Your task to perform on an android device: Open Amazon Image 0: 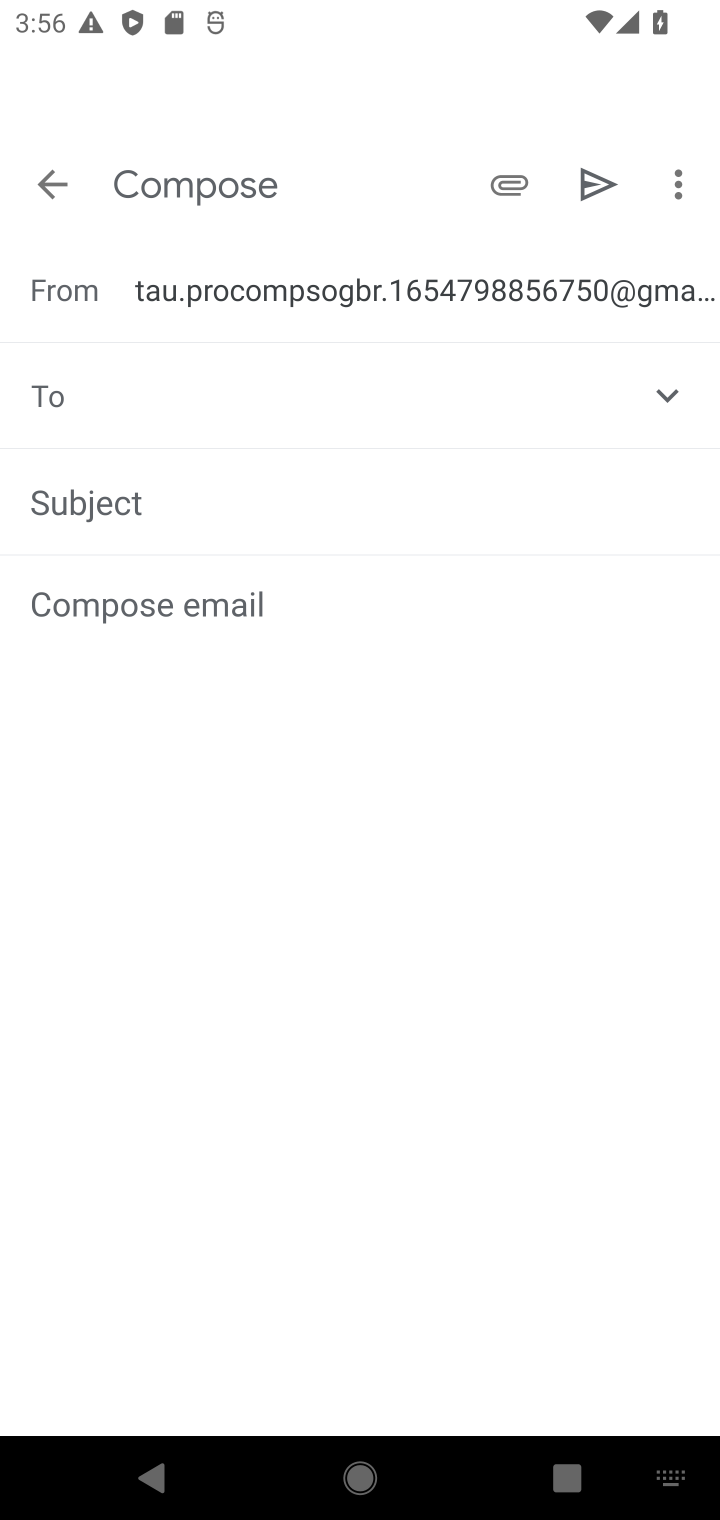
Step 0: press home button
Your task to perform on an android device: Open Amazon Image 1: 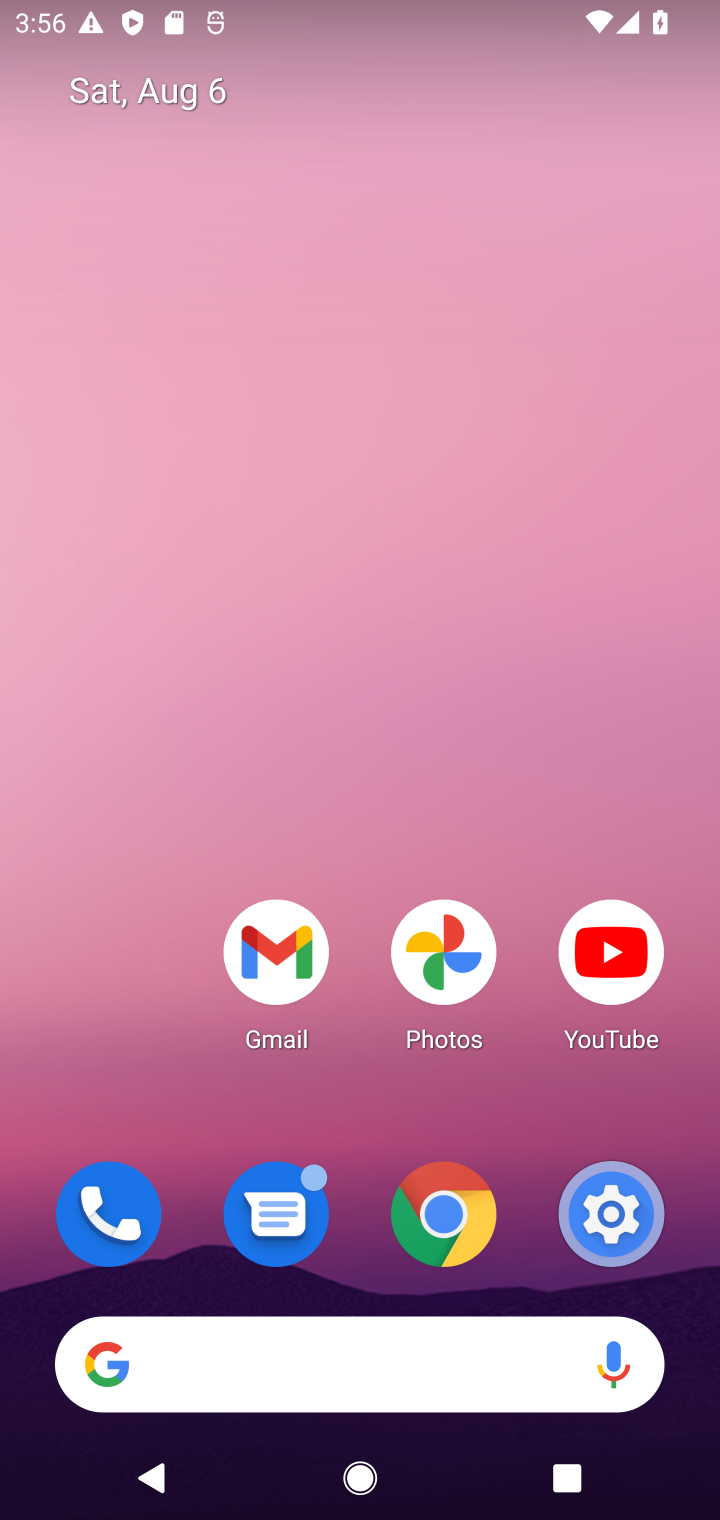
Step 1: click (444, 1209)
Your task to perform on an android device: Open Amazon Image 2: 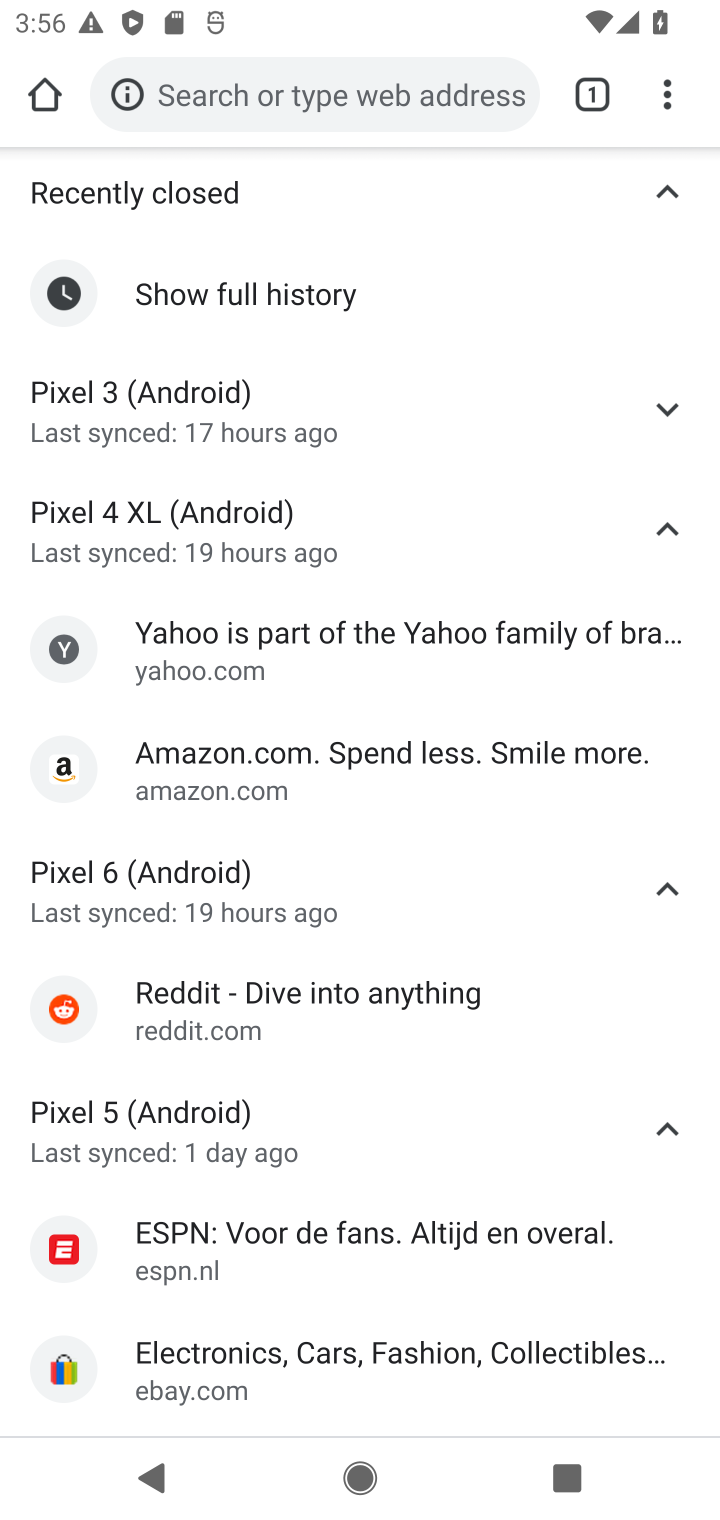
Step 2: press back button
Your task to perform on an android device: Open Amazon Image 3: 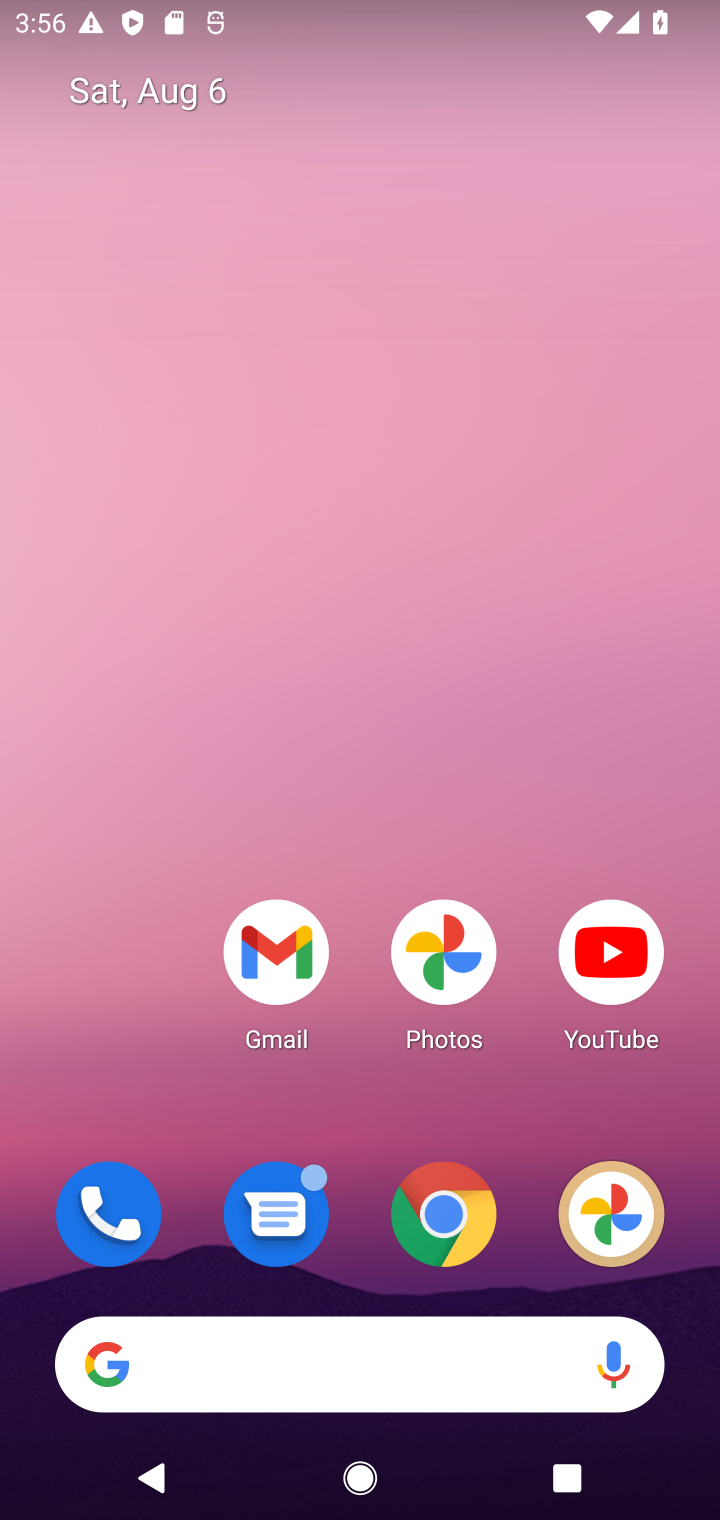
Step 3: click (425, 1216)
Your task to perform on an android device: Open Amazon Image 4: 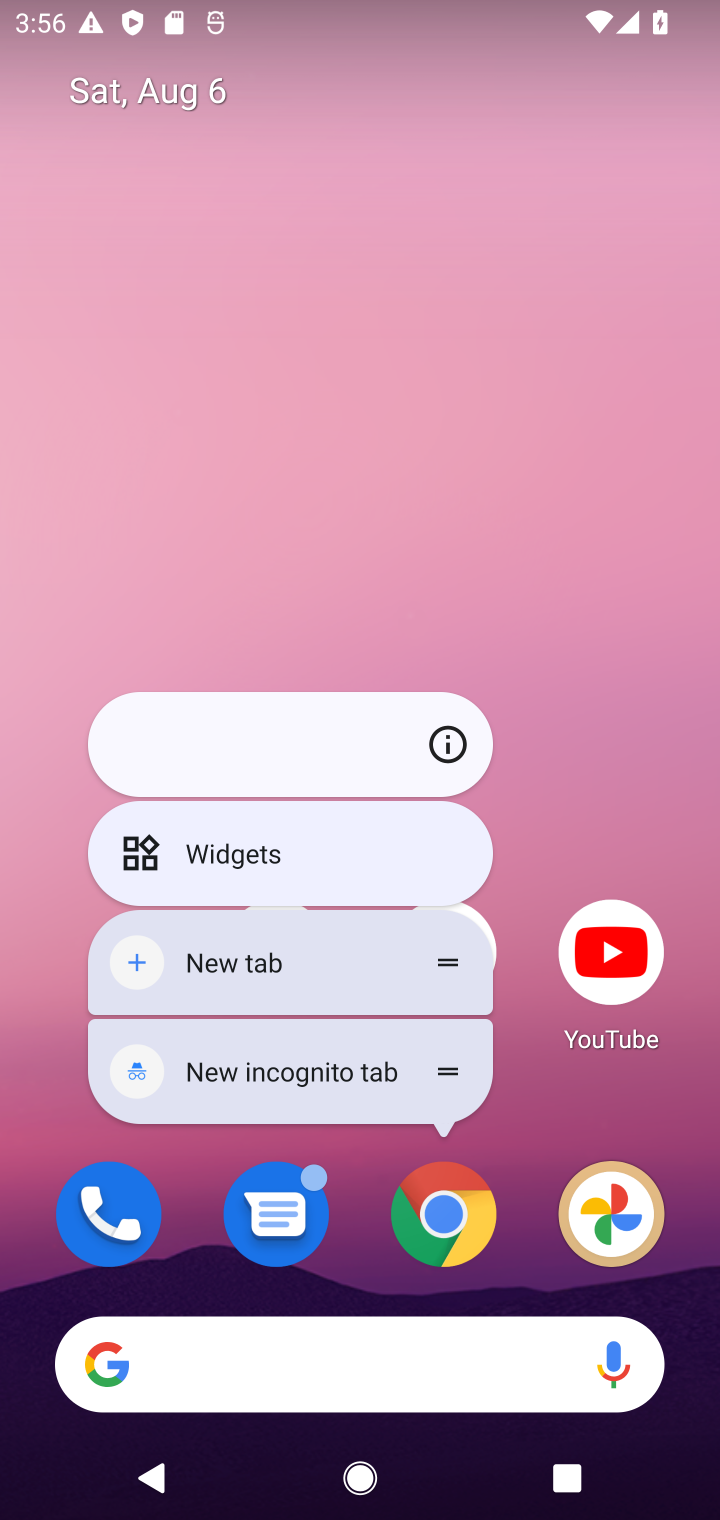
Step 4: click (438, 1216)
Your task to perform on an android device: Open Amazon Image 5: 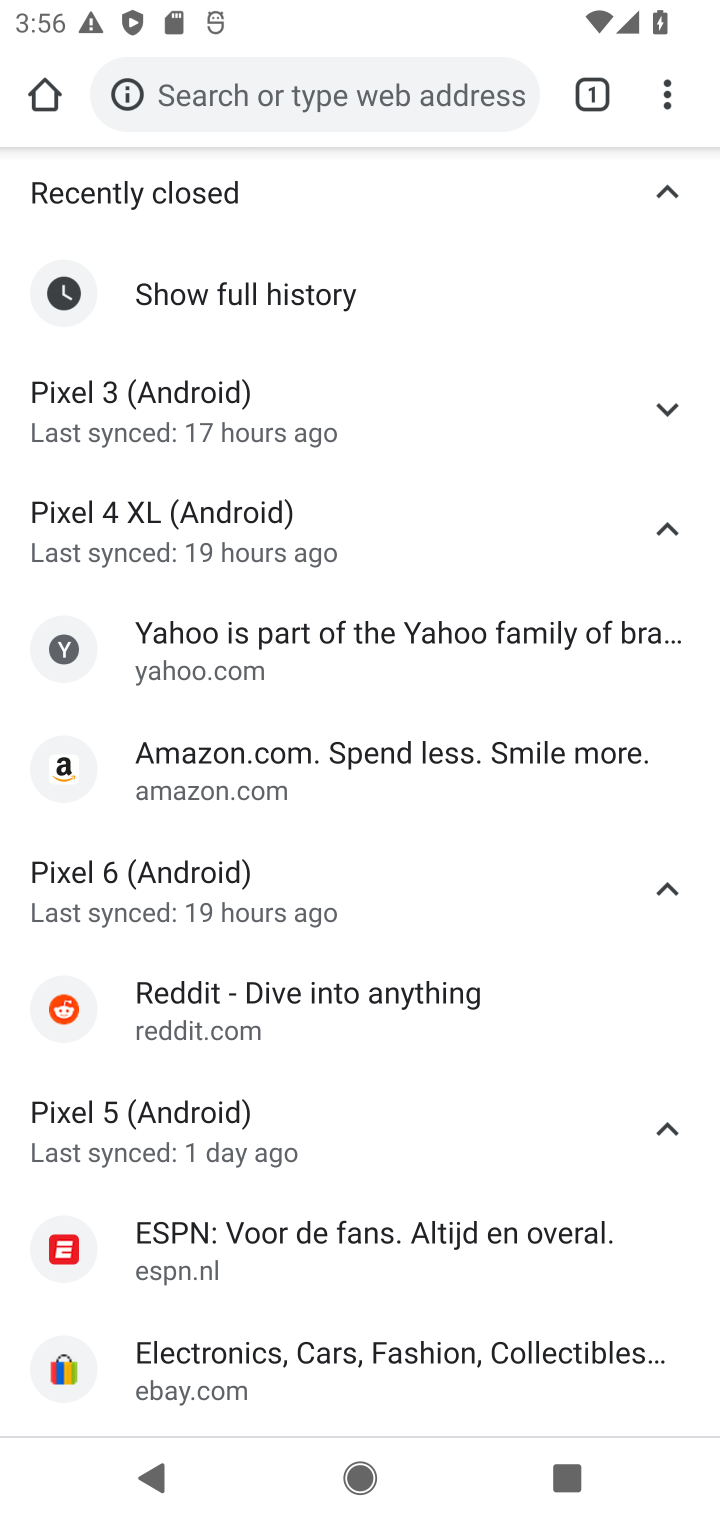
Step 5: click (383, 83)
Your task to perform on an android device: Open Amazon Image 6: 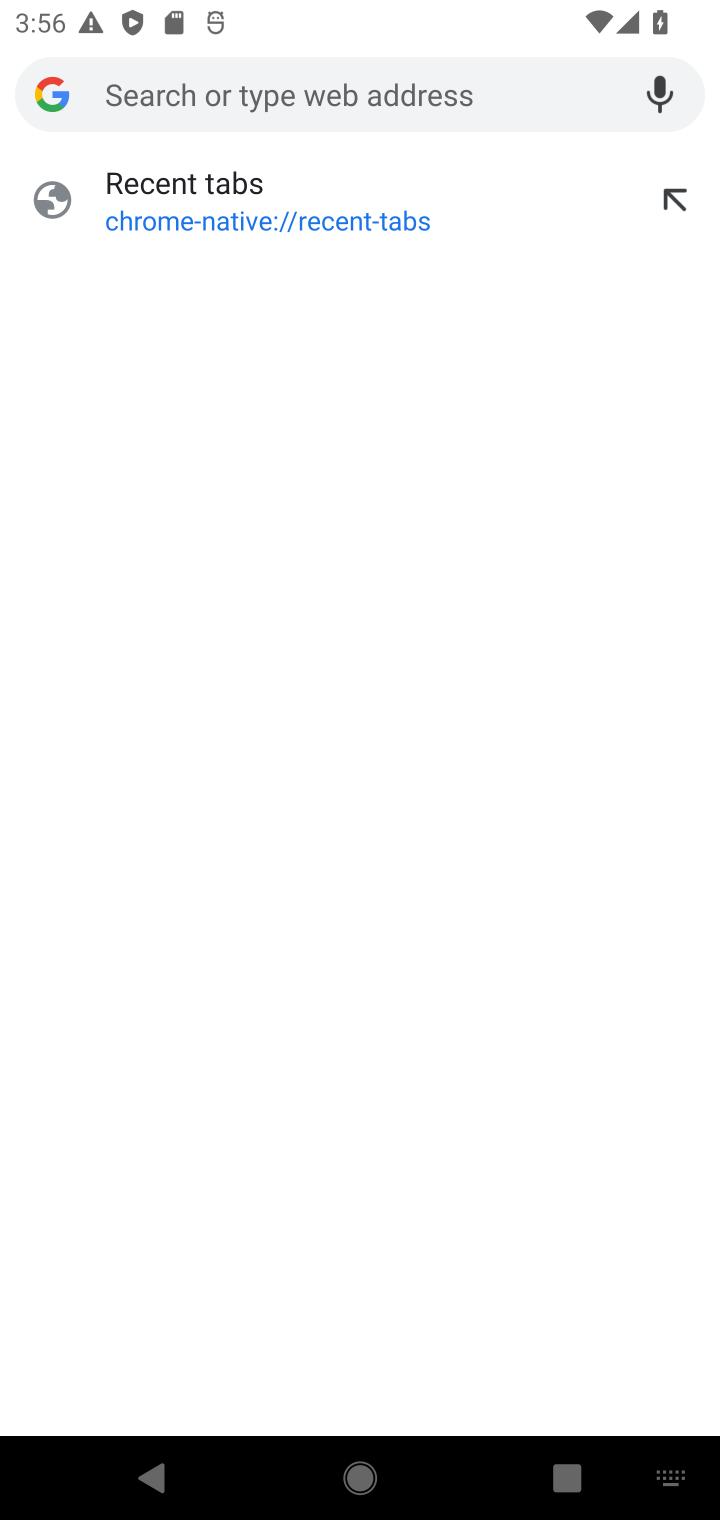
Step 6: type "www.amazon.com"
Your task to perform on an android device: Open Amazon Image 7: 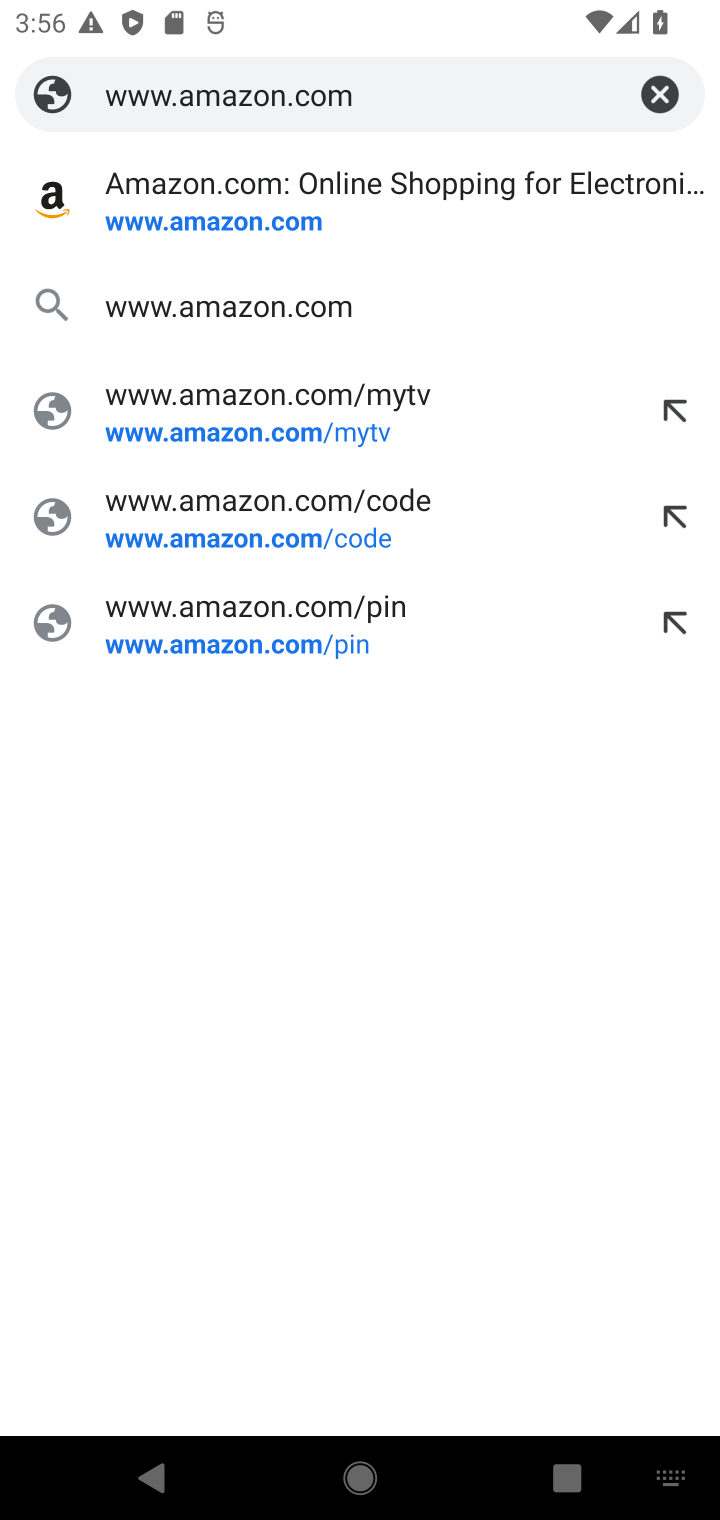
Step 7: click (286, 216)
Your task to perform on an android device: Open Amazon Image 8: 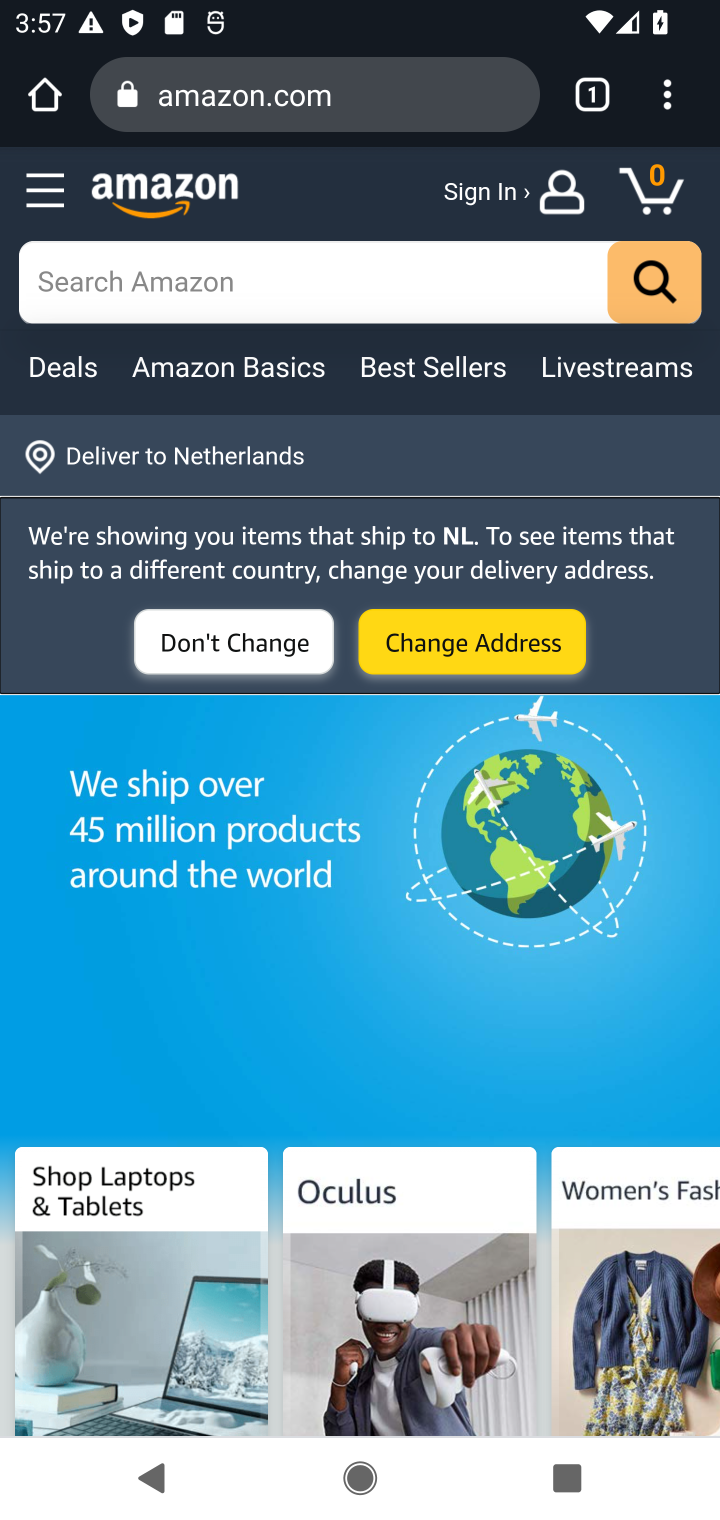
Step 8: task complete